Your task to perform on an android device: Search for a new highlighter Image 0: 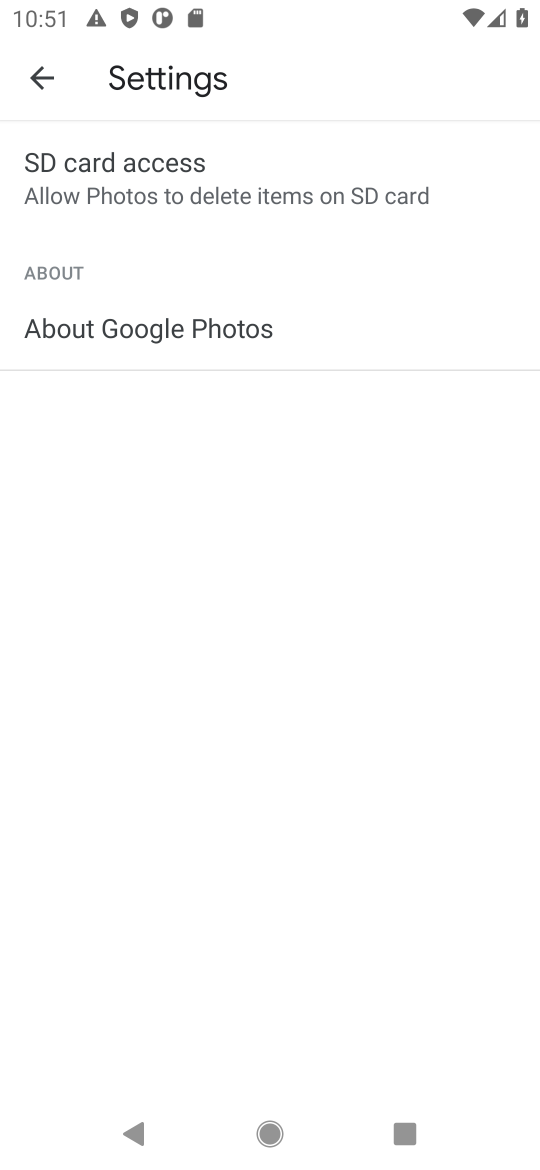
Step 0: press home button
Your task to perform on an android device: Search for a new highlighter Image 1: 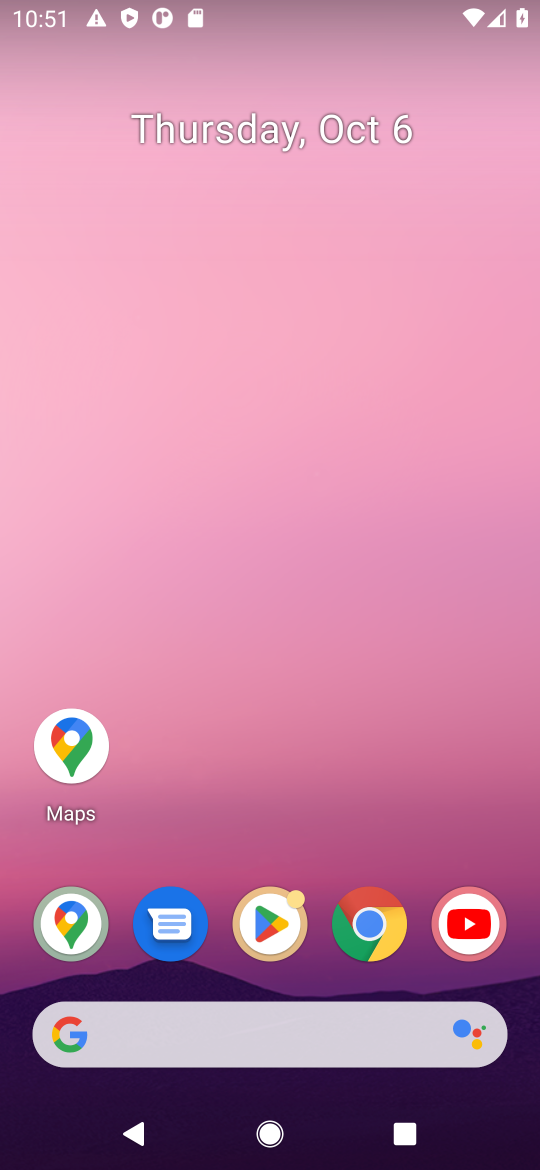
Step 1: click (372, 914)
Your task to perform on an android device: Search for a new highlighter Image 2: 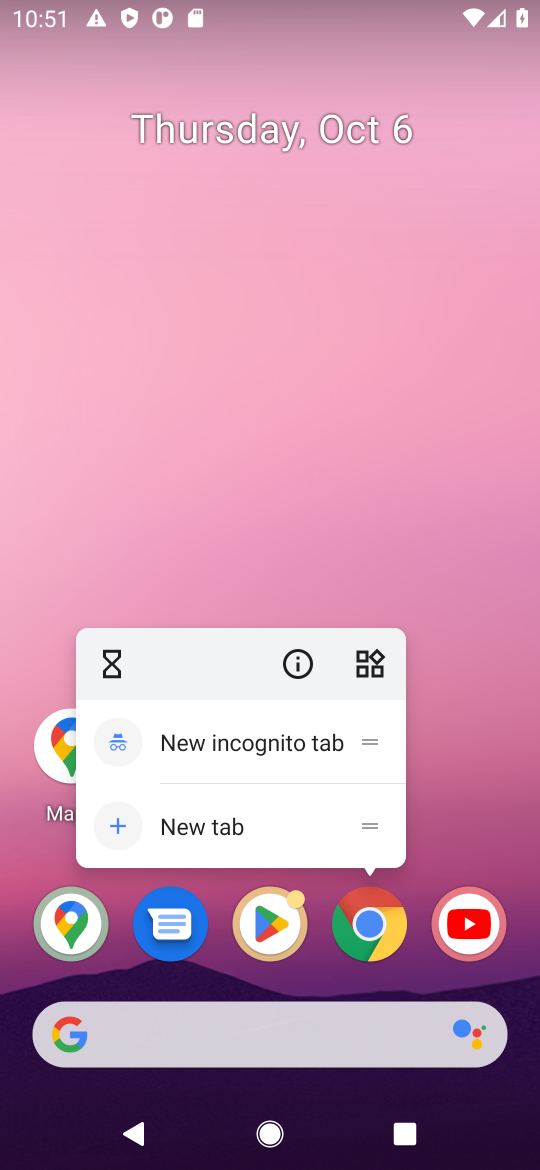
Step 2: click (366, 918)
Your task to perform on an android device: Search for a new highlighter Image 3: 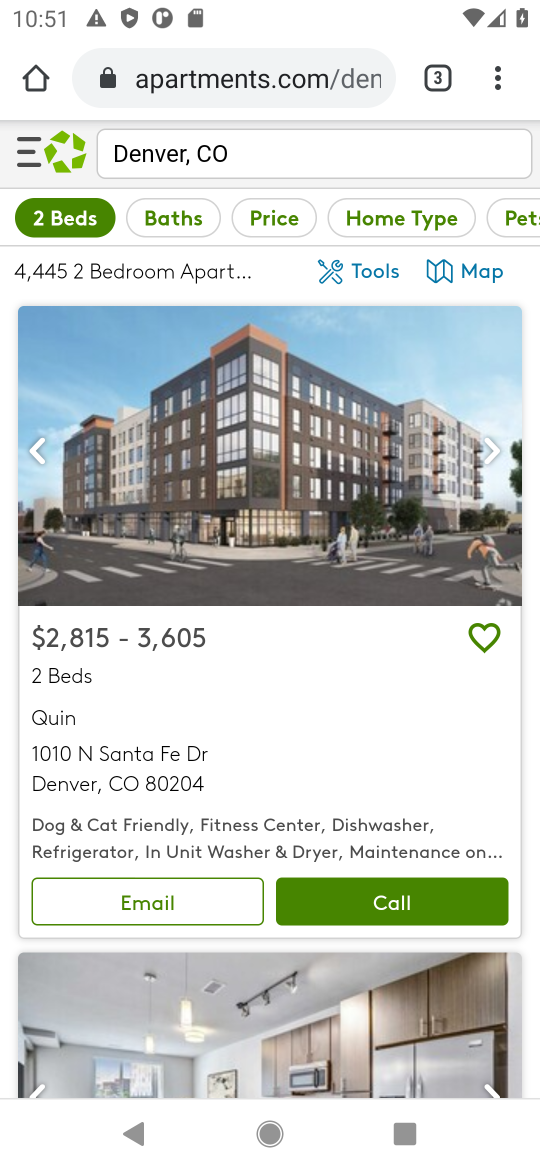
Step 3: click (302, 70)
Your task to perform on an android device: Search for a new highlighter Image 4: 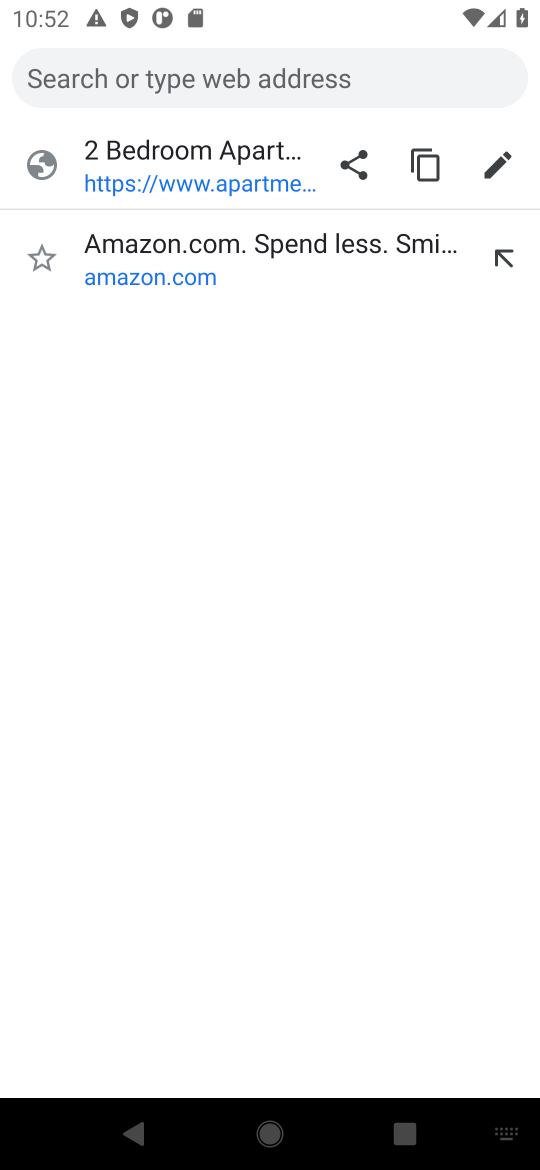
Step 4: type "new highlighter"
Your task to perform on an android device: Search for a new highlighter Image 5: 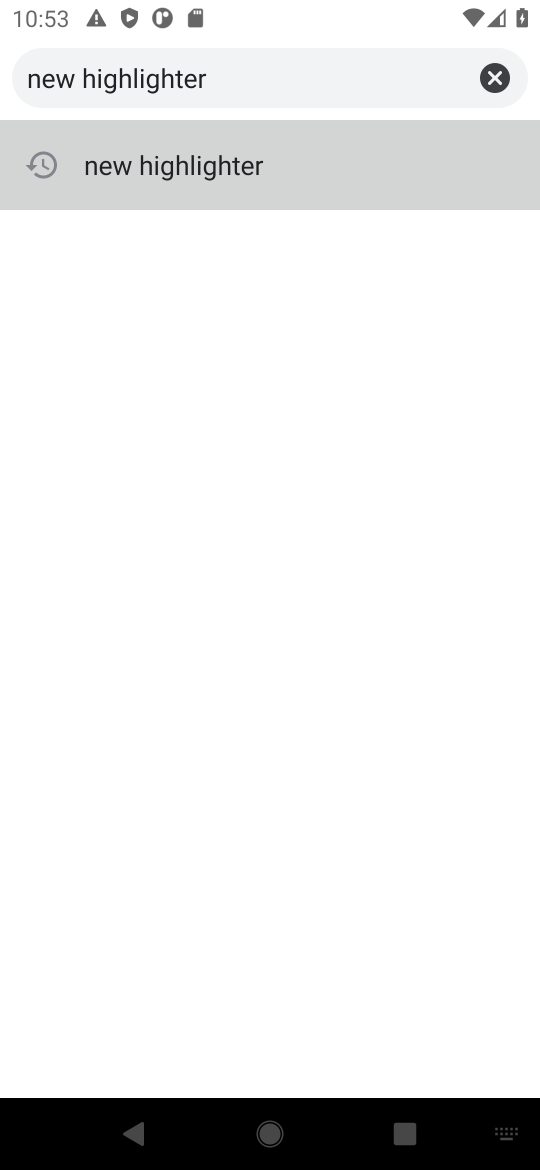
Step 5: click (182, 161)
Your task to perform on an android device: Search for a new highlighter Image 6: 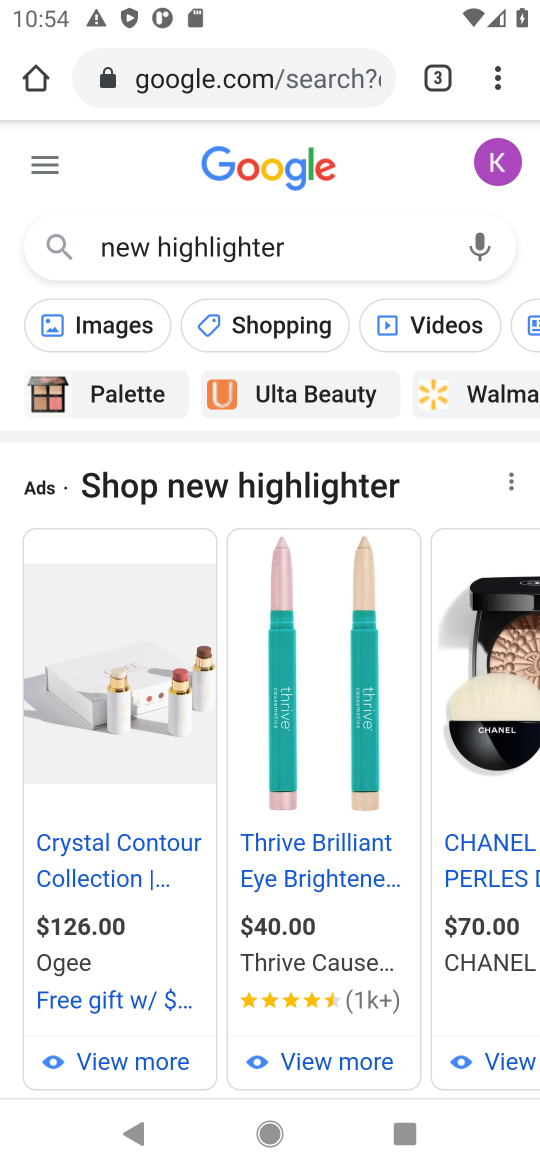
Step 6: task complete